Your task to perform on an android device: empty trash in google photos Image 0: 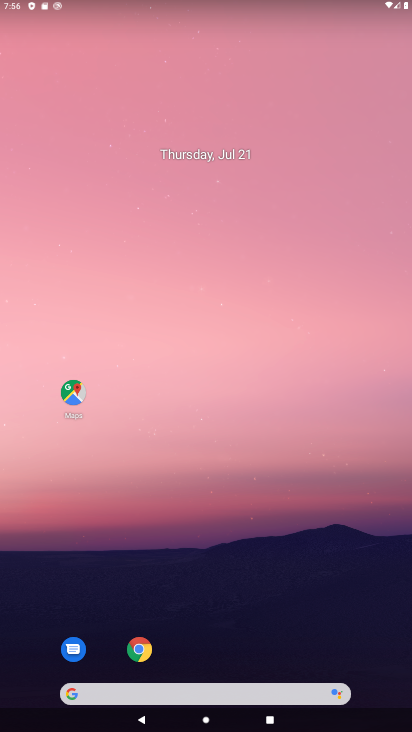
Step 0: drag from (256, 576) to (276, 107)
Your task to perform on an android device: empty trash in google photos Image 1: 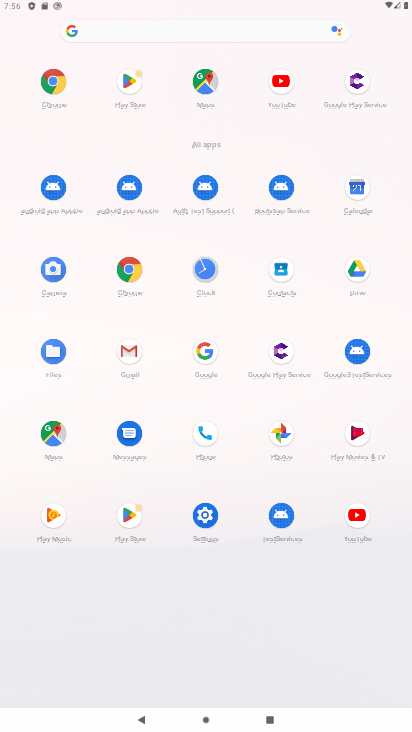
Step 1: click (274, 438)
Your task to perform on an android device: empty trash in google photos Image 2: 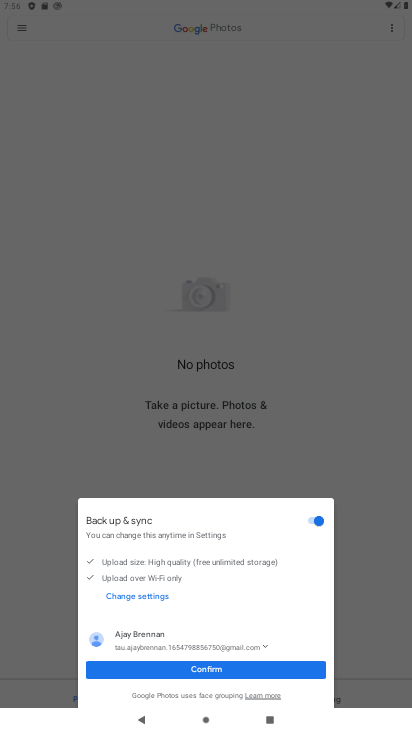
Step 2: click (224, 673)
Your task to perform on an android device: empty trash in google photos Image 3: 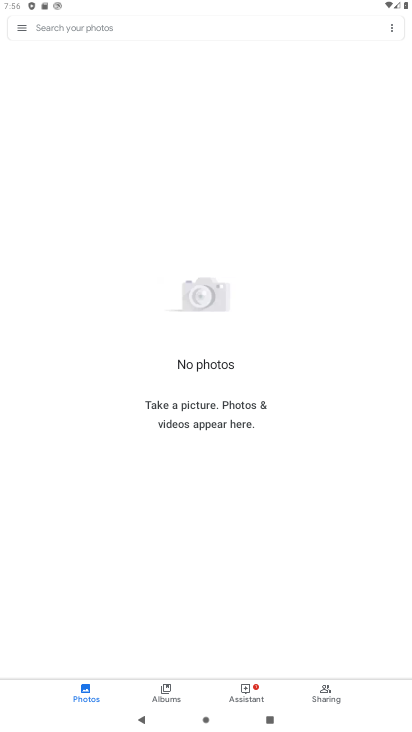
Step 3: click (18, 29)
Your task to perform on an android device: empty trash in google photos Image 4: 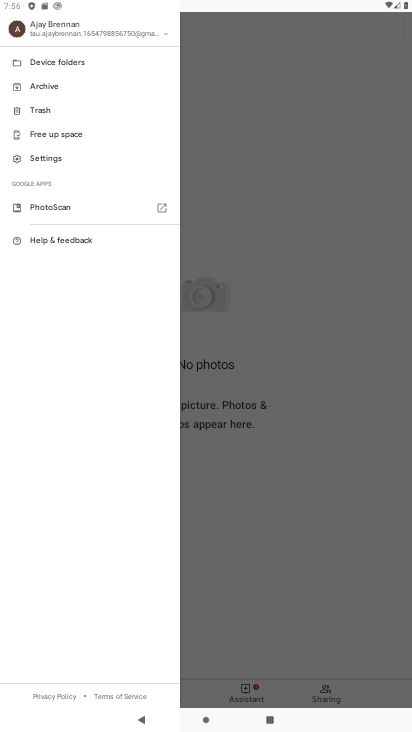
Step 4: click (48, 112)
Your task to perform on an android device: empty trash in google photos Image 5: 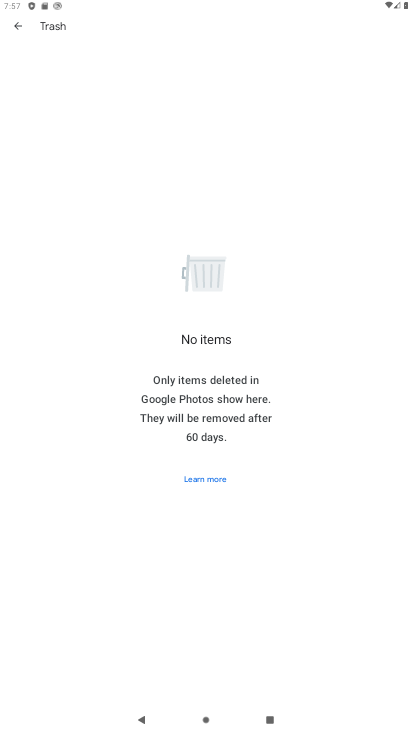
Step 5: task complete